Your task to perform on an android device: Open Youtube and go to "Your channel" Image 0: 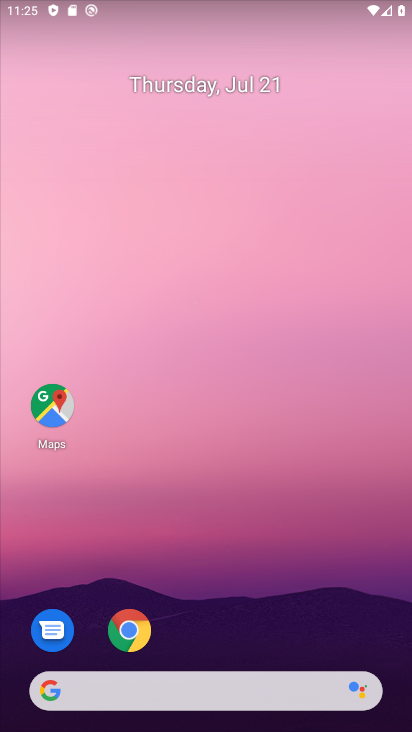
Step 0: drag from (316, 598) to (275, 13)
Your task to perform on an android device: Open Youtube and go to "Your channel" Image 1: 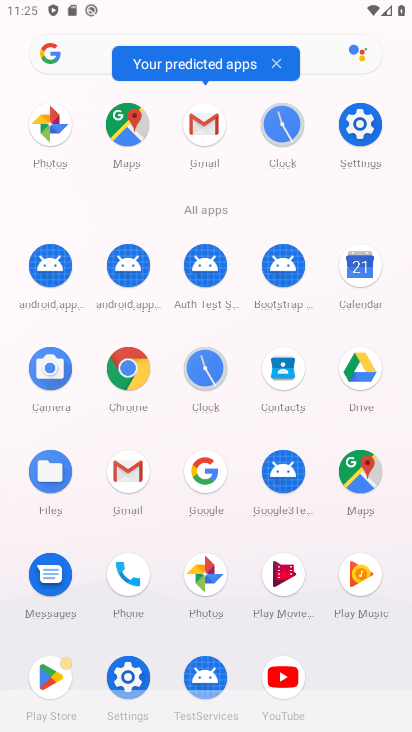
Step 1: click (287, 670)
Your task to perform on an android device: Open Youtube and go to "Your channel" Image 2: 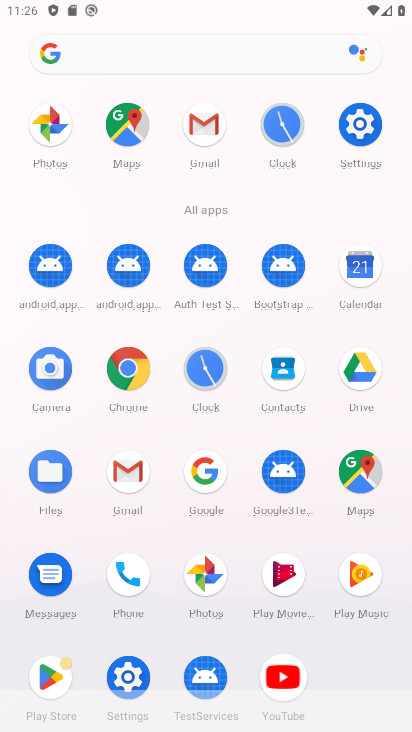
Step 2: click (287, 670)
Your task to perform on an android device: Open Youtube and go to "Your channel" Image 3: 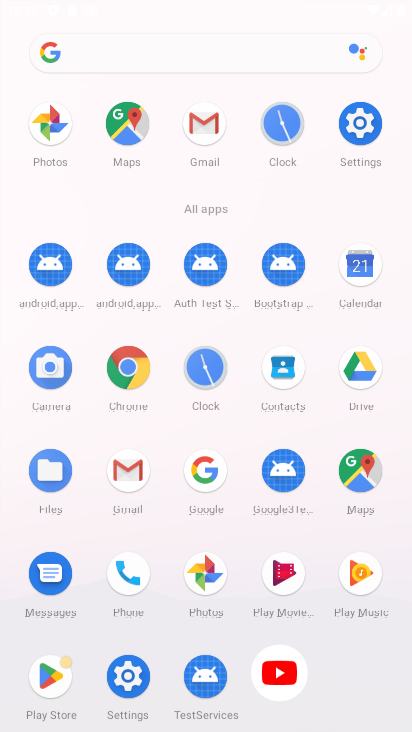
Step 3: click (287, 670)
Your task to perform on an android device: Open Youtube and go to "Your channel" Image 4: 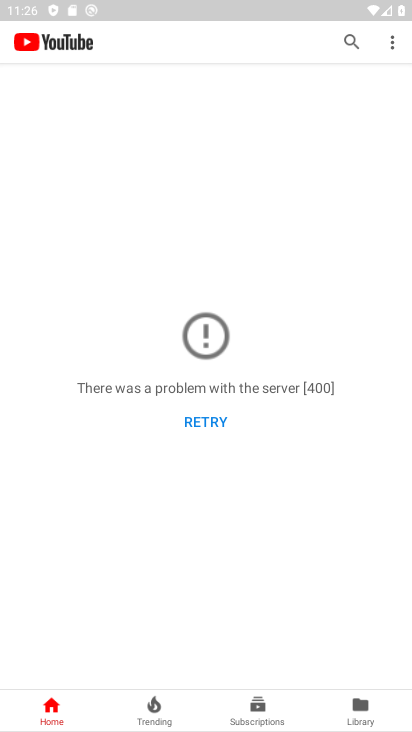
Step 4: click (381, 700)
Your task to perform on an android device: Open Youtube and go to "Your channel" Image 5: 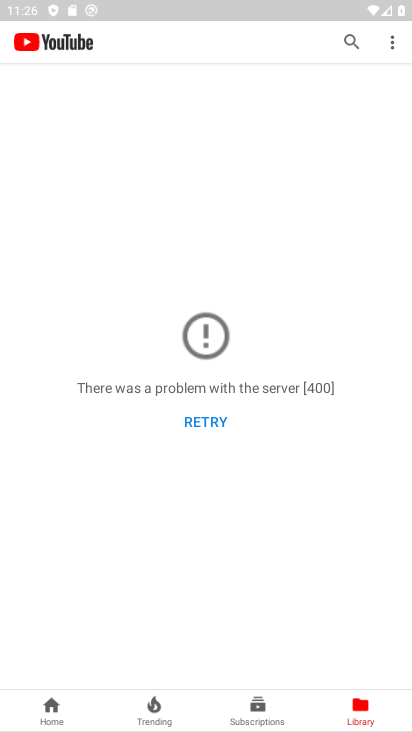
Step 5: task complete